Your task to perform on an android device: toggle airplane mode Image 0: 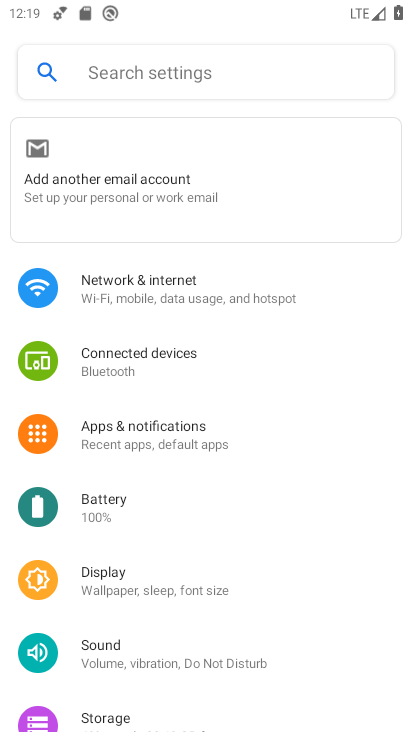
Step 0: press home button
Your task to perform on an android device: toggle airplane mode Image 1: 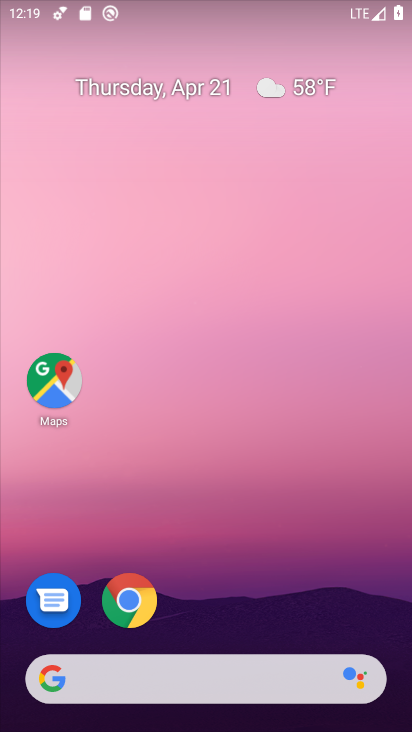
Step 1: drag from (311, 574) to (334, 34)
Your task to perform on an android device: toggle airplane mode Image 2: 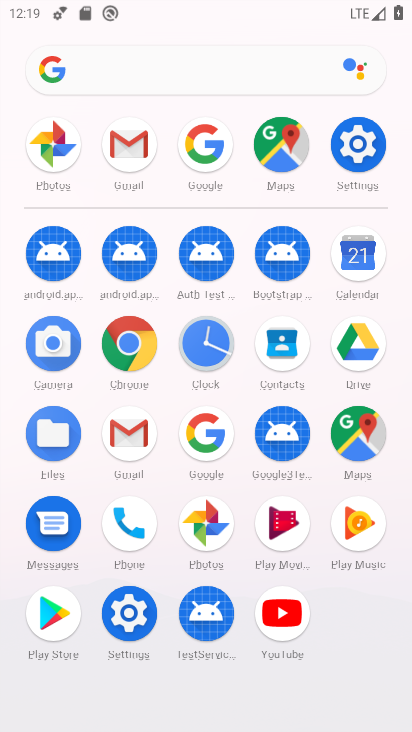
Step 2: click (353, 131)
Your task to perform on an android device: toggle airplane mode Image 3: 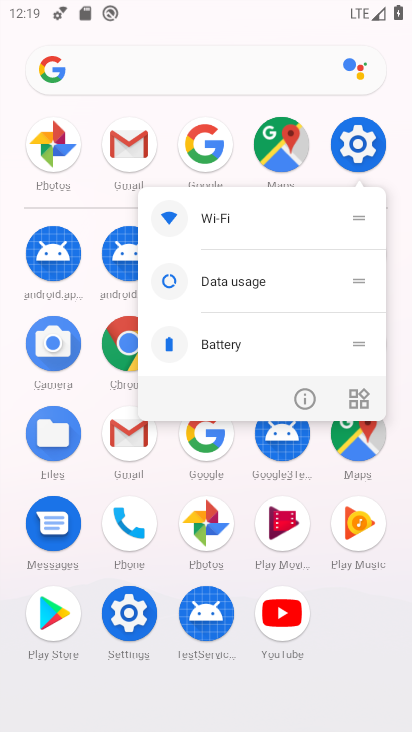
Step 3: click (353, 131)
Your task to perform on an android device: toggle airplane mode Image 4: 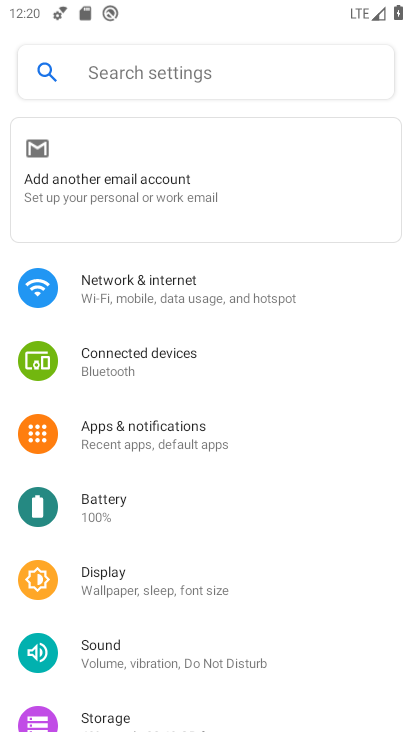
Step 4: click (251, 283)
Your task to perform on an android device: toggle airplane mode Image 5: 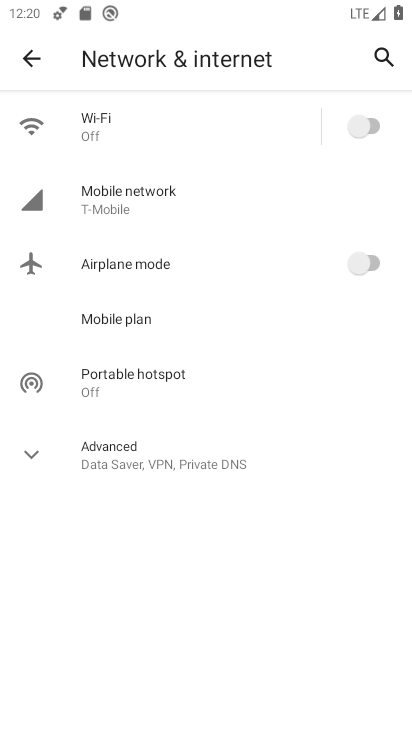
Step 5: click (365, 259)
Your task to perform on an android device: toggle airplane mode Image 6: 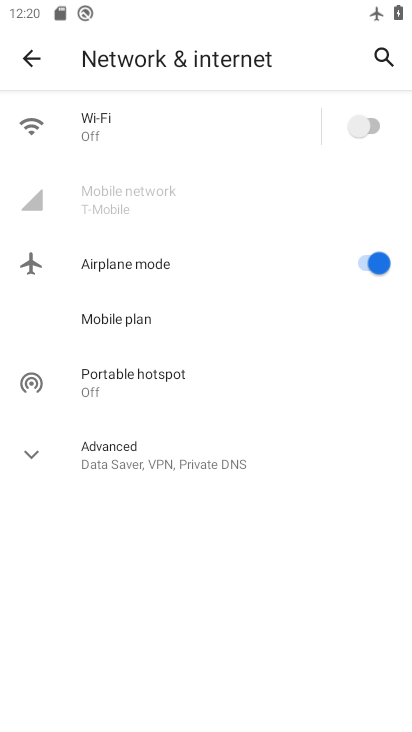
Step 6: task complete